Your task to perform on an android device: Open Wikipedia Image 0: 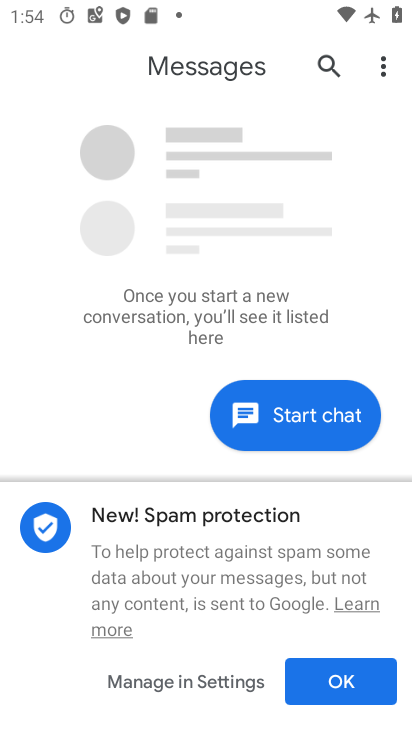
Step 0: press home button
Your task to perform on an android device: Open Wikipedia Image 1: 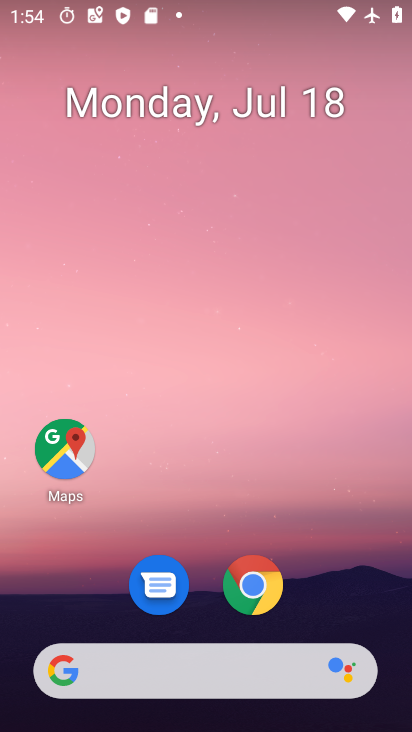
Step 1: click (258, 590)
Your task to perform on an android device: Open Wikipedia Image 2: 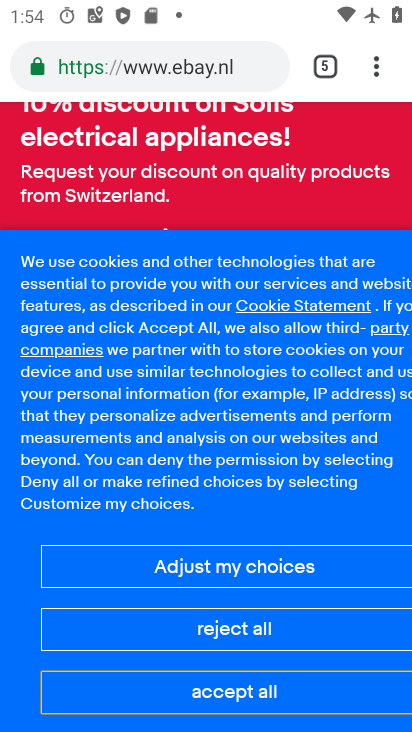
Step 2: drag from (376, 64) to (182, 137)
Your task to perform on an android device: Open Wikipedia Image 3: 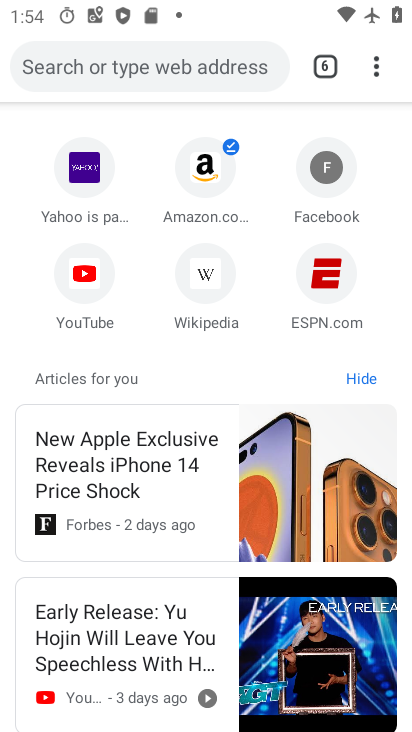
Step 3: click (209, 277)
Your task to perform on an android device: Open Wikipedia Image 4: 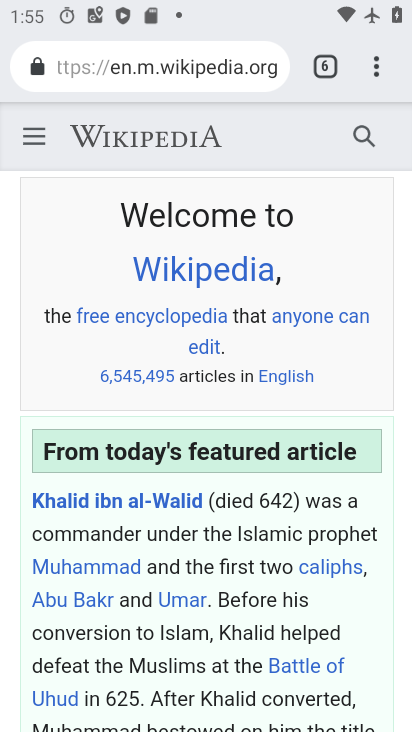
Step 4: task complete